Your task to perform on an android device: Open Maps and search for coffee Image 0: 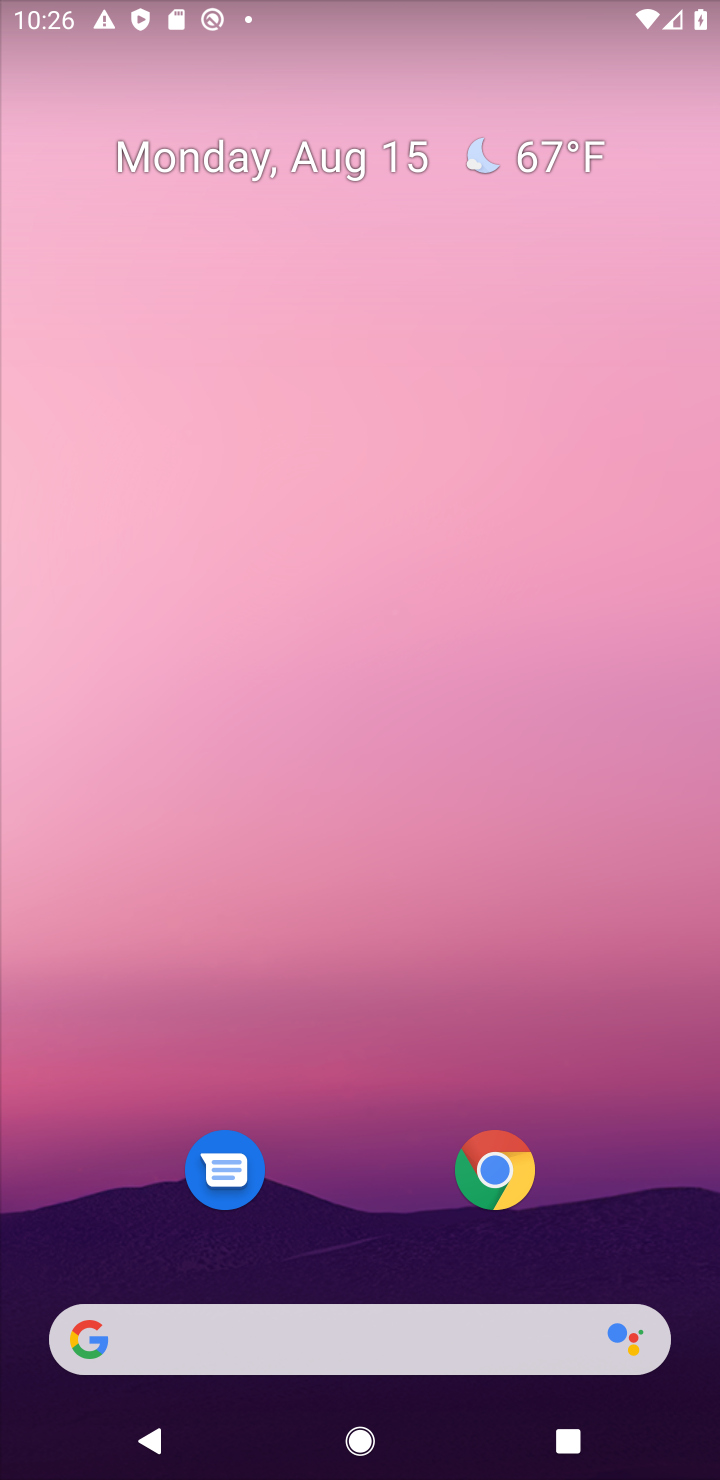
Step 0: press home button
Your task to perform on an android device: Open Maps and search for coffee Image 1: 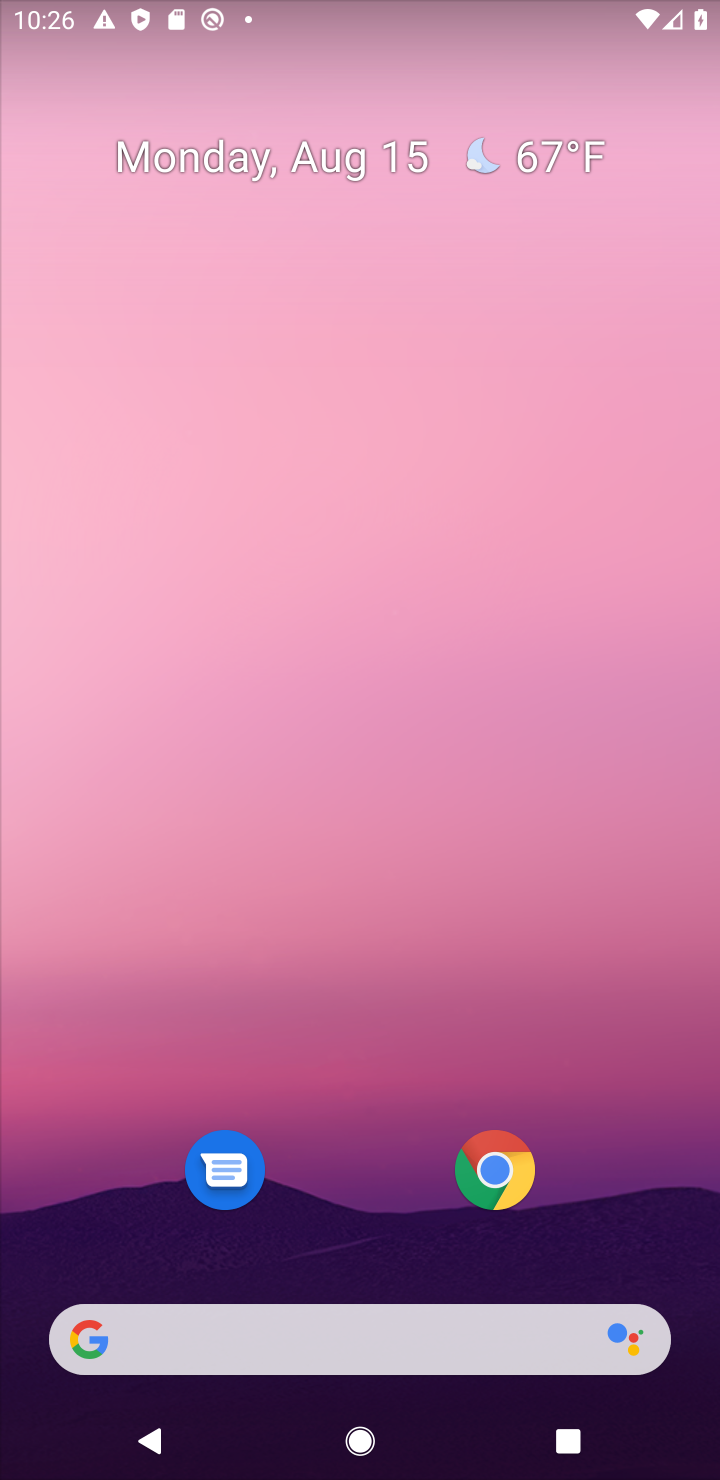
Step 1: drag from (366, 1239) to (374, 127)
Your task to perform on an android device: Open Maps and search for coffee Image 2: 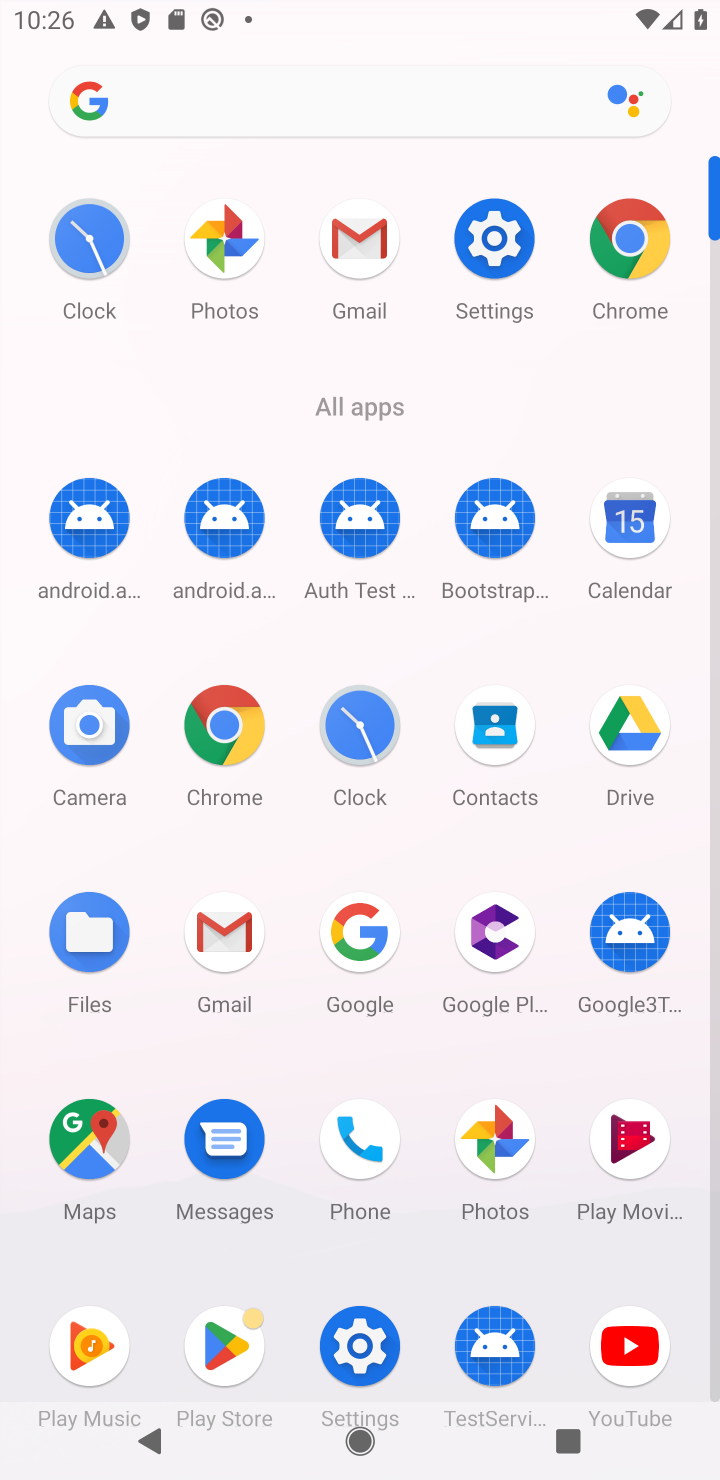
Step 2: click (83, 1134)
Your task to perform on an android device: Open Maps and search for coffee Image 3: 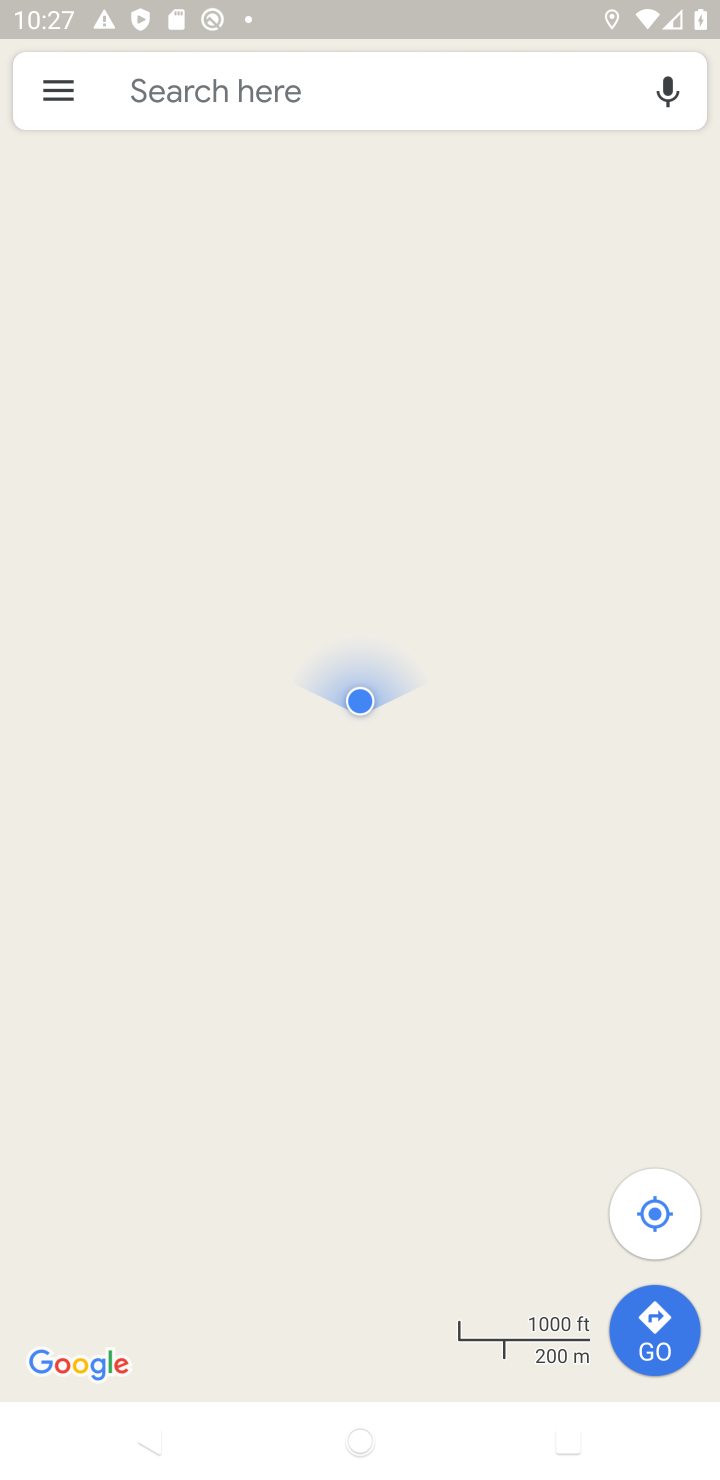
Step 3: click (202, 84)
Your task to perform on an android device: Open Maps and search for coffee Image 4: 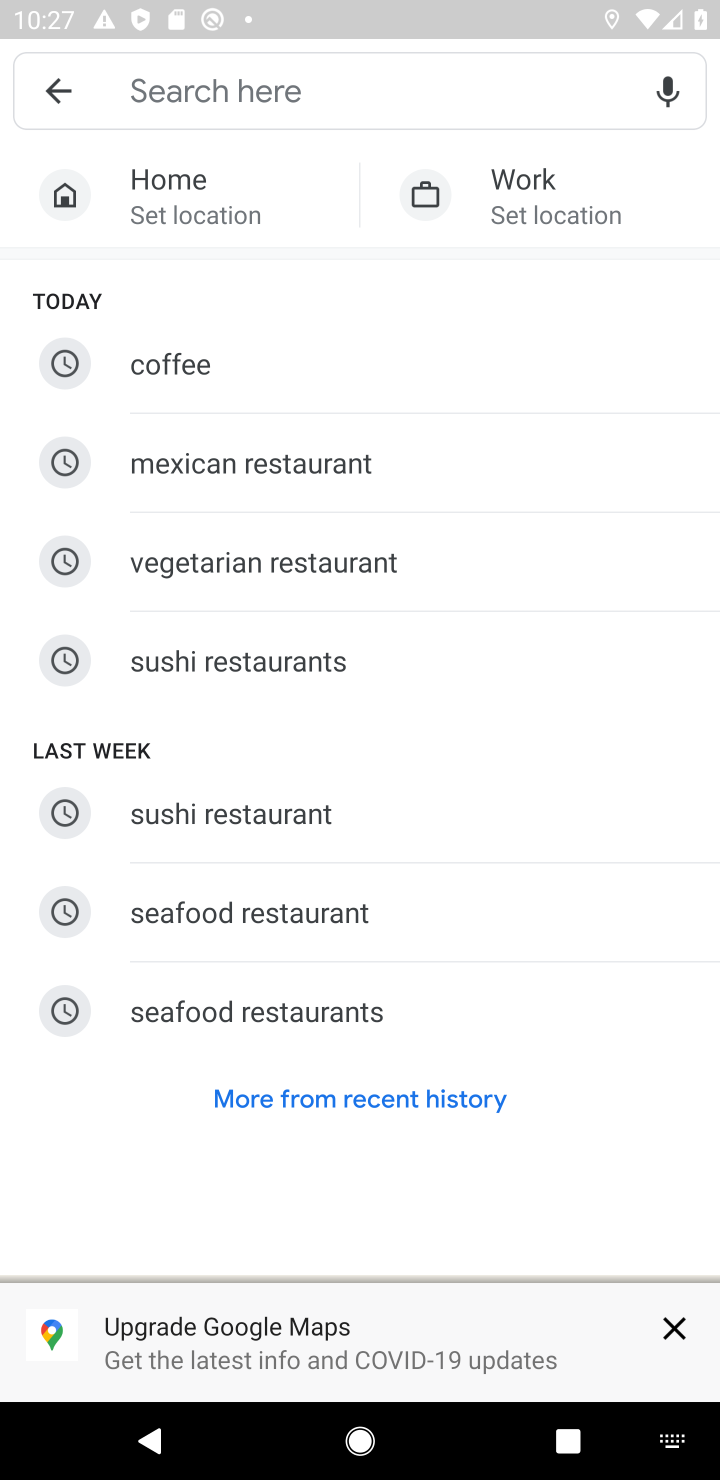
Step 4: click (220, 358)
Your task to perform on an android device: Open Maps and search for coffee Image 5: 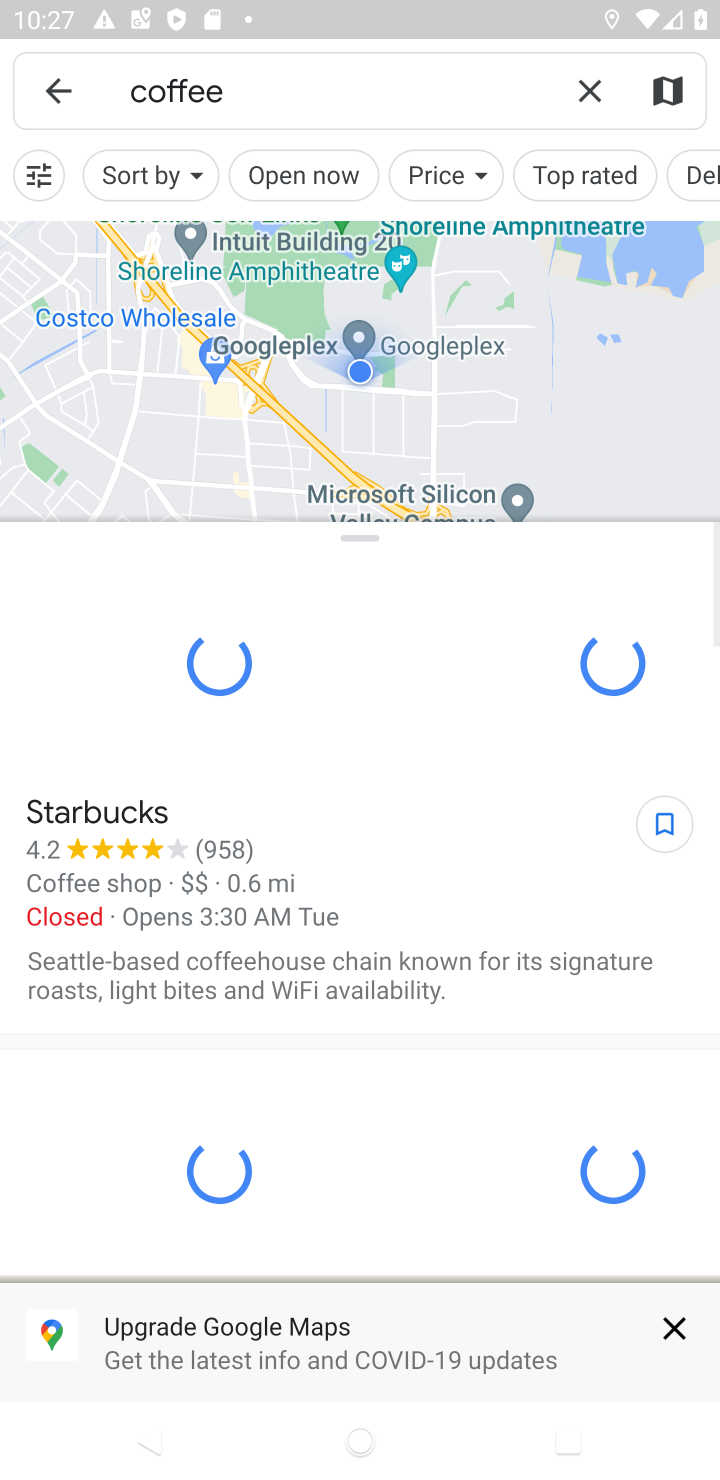
Step 5: drag from (314, 1019) to (381, 560)
Your task to perform on an android device: Open Maps and search for coffee Image 6: 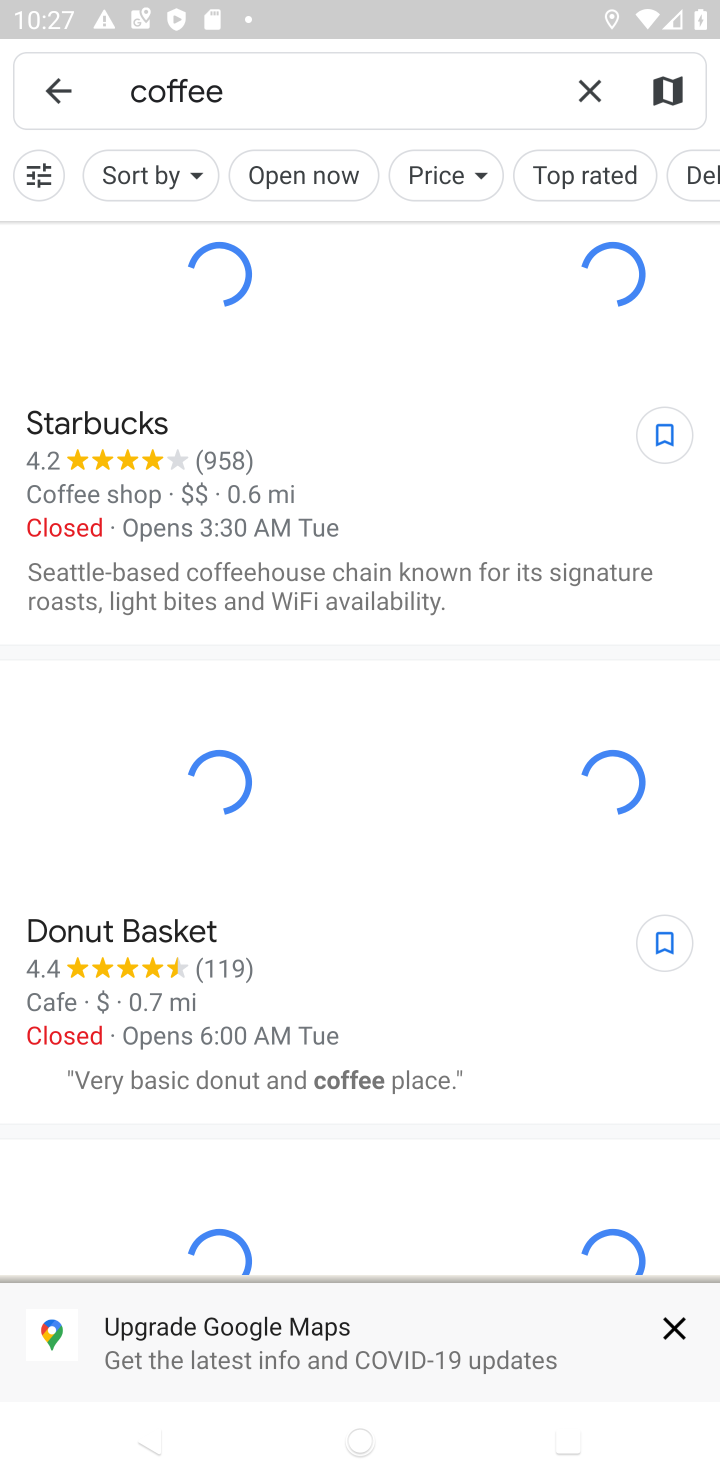
Step 6: drag from (469, 613) to (491, 550)
Your task to perform on an android device: Open Maps and search for coffee Image 7: 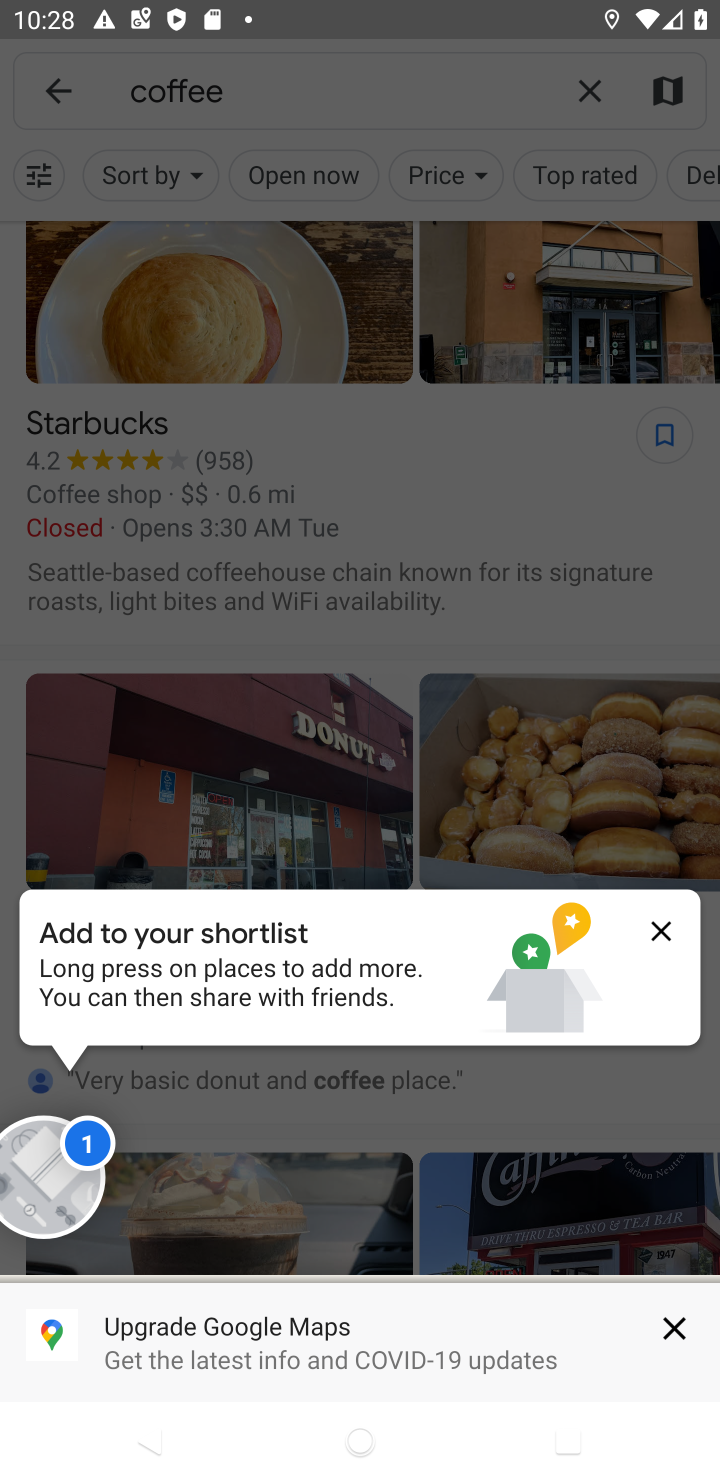
Step 7: click (661, 922)
Your task to perform on an android device: Open Maps and search for coffee Image 8: 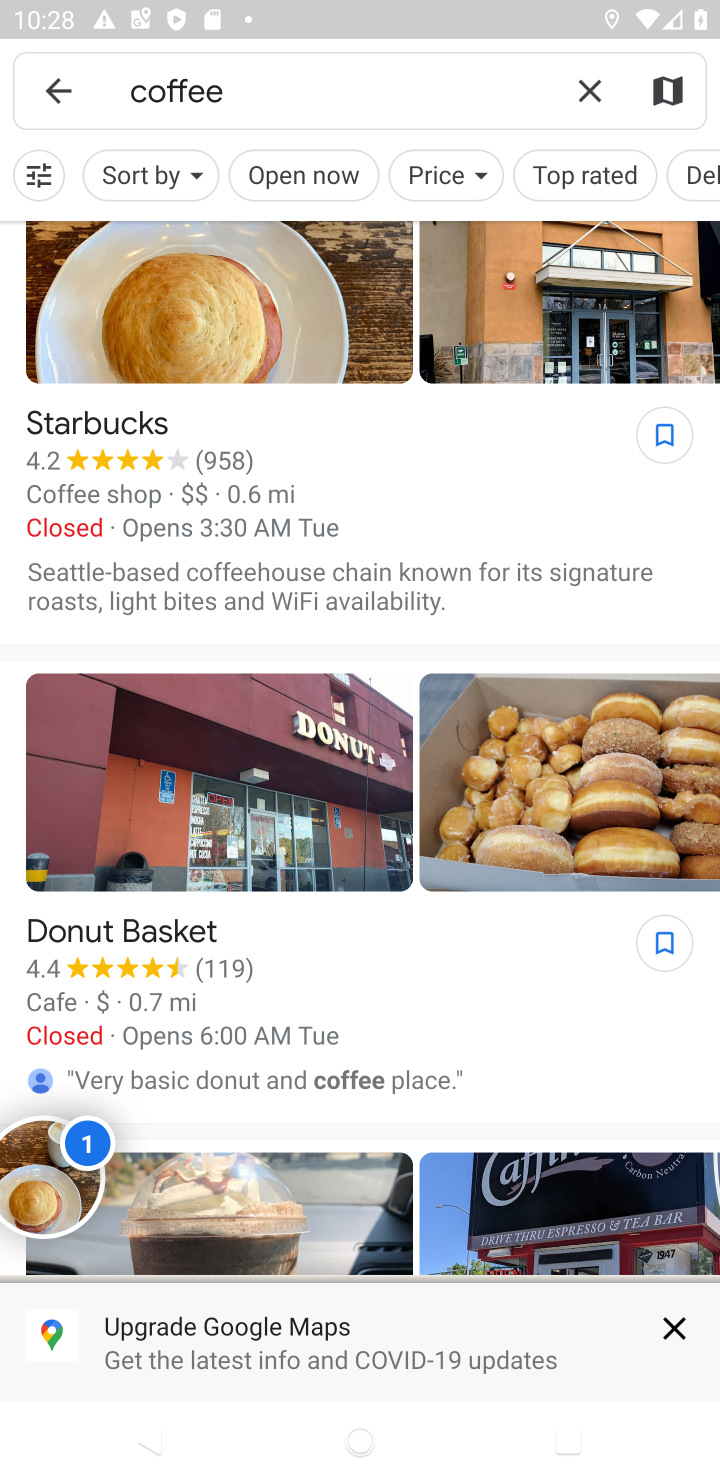
Step 8: task complete